Your task to perform on an android device: open device folders in google photos Image 0: 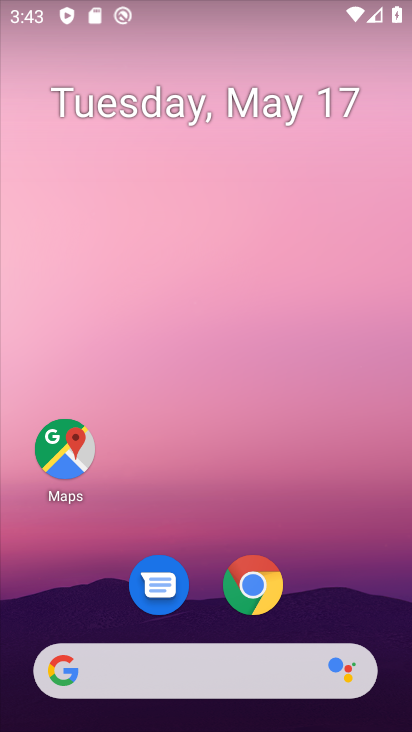
Step 0: drag from (280, 509) to (251, 22)
Your task to perform on an android device: open device folders in google photos Image 1: 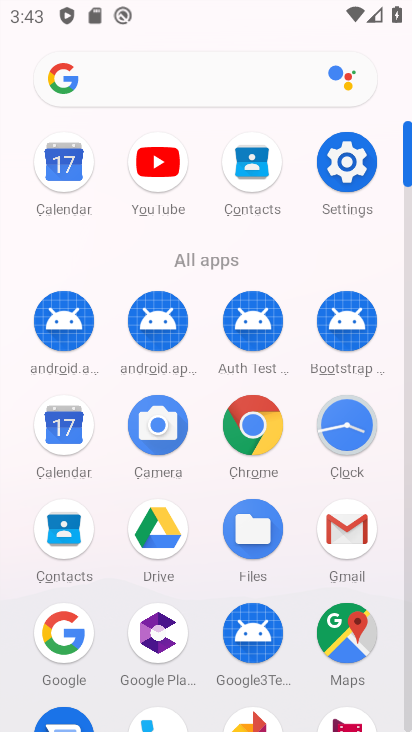
Step 1: drag from (212, 455) to (223, 212)
Your task to perform on an android device: open device folders in google photos Image 2: 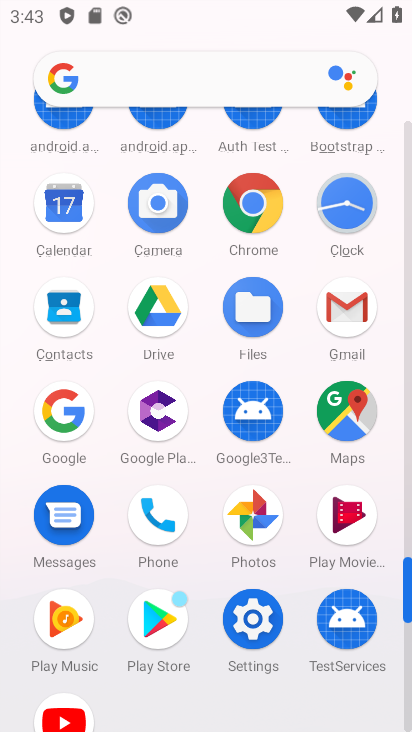
Step 2: click (254, 515)
Your task to perform on an android device: open device folders in google photos Image 3: 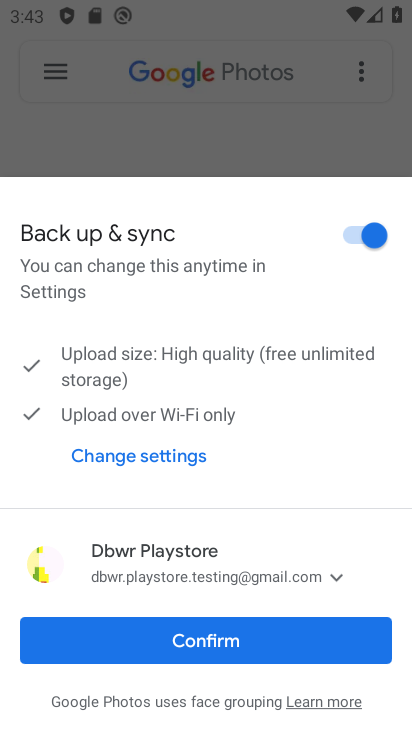
Step 3: click (291, 637)
Your task to perform on an android device: open device folders in google photos Image 4: 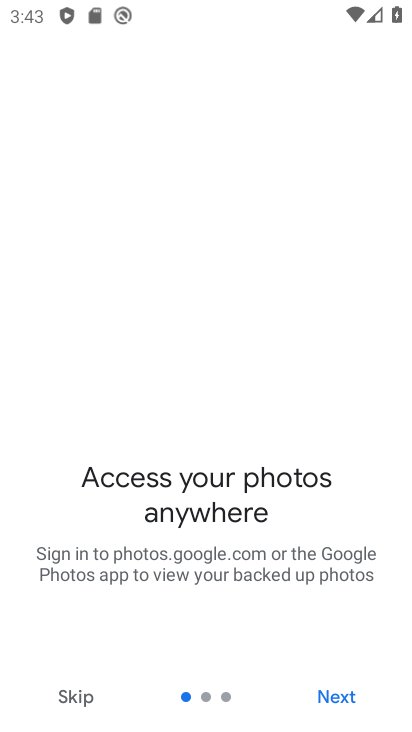
Step 4: click (336, 692)
Your task to perform on an android device: open device folders in google photos Image 5: 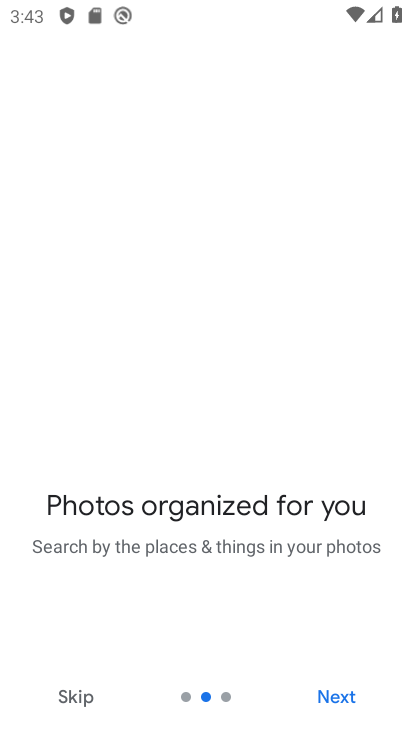
Step 5: click (336, 692)
Your task to perform on an android device: open device folders in google photos Image 6: 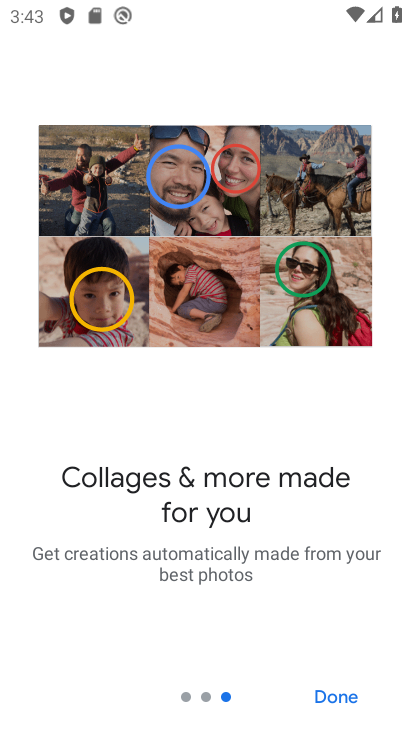
Step 6: click (336, 694)
Your task to perform on an android device: open device folders in google photos Image 7: 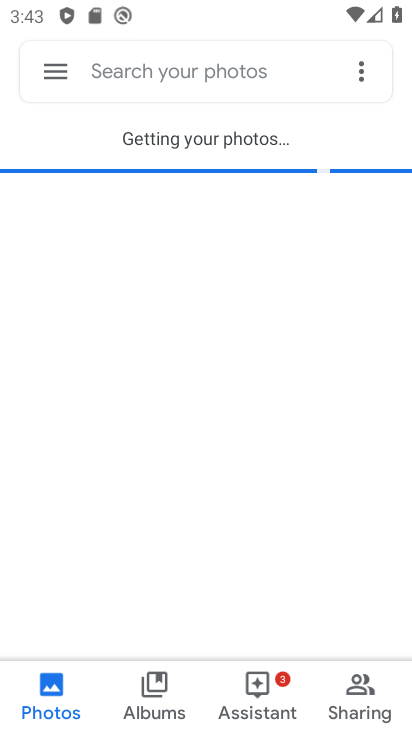
Step 7: click (52, 71)
Your task to perform on an android device: open device folders in google photos Image 8: 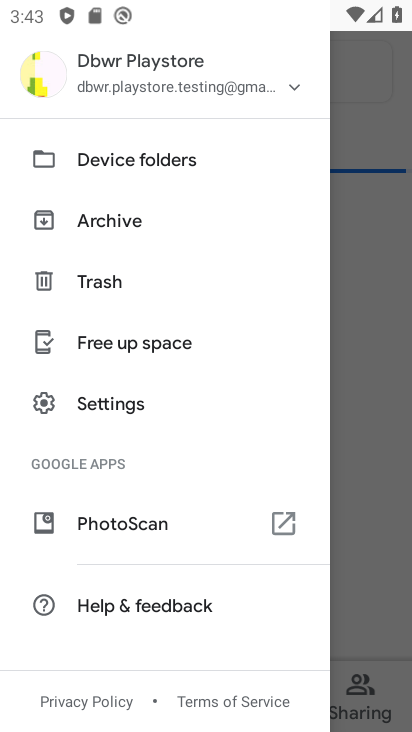
Step 8: click (114, 154)
Your task to perform on an android device: open device folders in google photos Image 9: 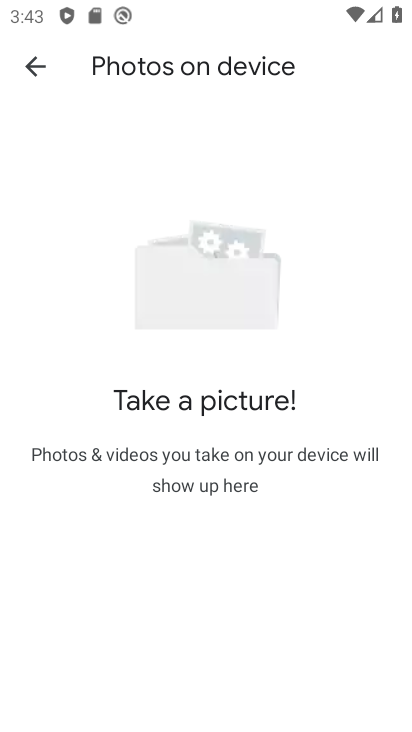
Step 9: task complete